Your task to perform on an android device: change the clock display to digital Image 0: 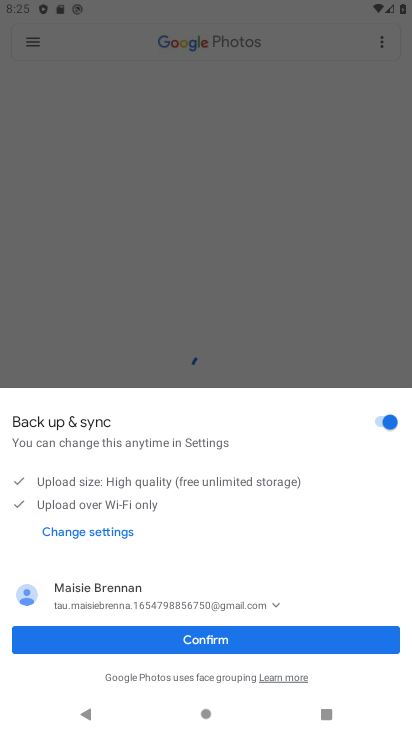
Step 0: click (158, 260)
Your task to perform on an android device: change the clock display to digital Image 1: 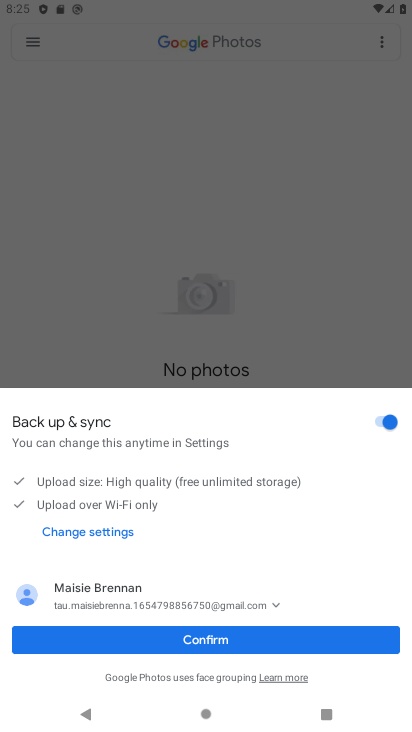
Step 1: click (172, 247)
Your task to perform on an android device: change the clock display to digital Image 2: 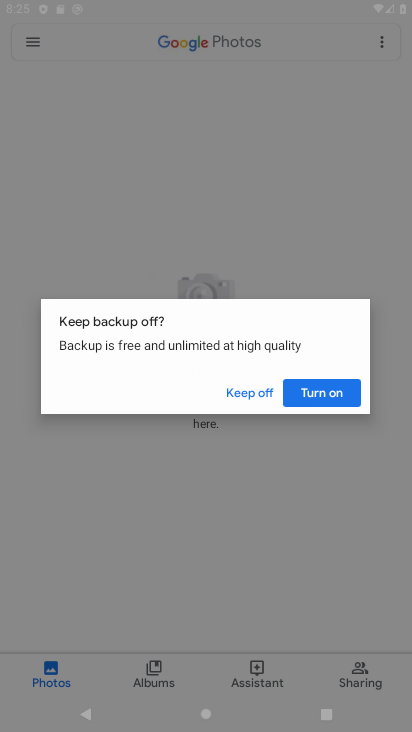
Step 2: click (174, 243)
Your task to perform on an android device: change the clock display to digital Image 3: 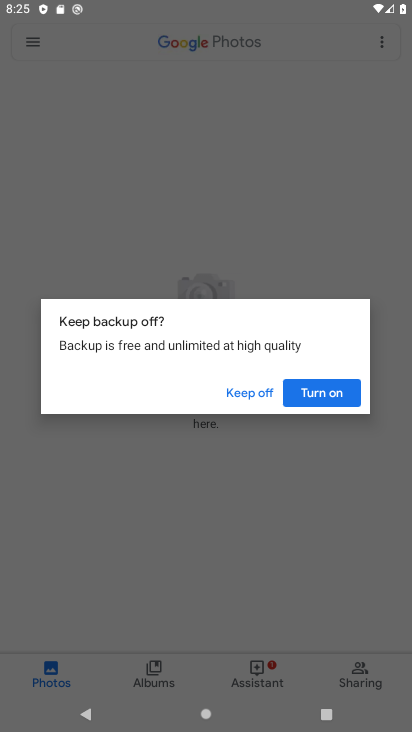
Step 3: click (309, 168)
Your task to perform on an android device: change the clock display to digital Image 4: 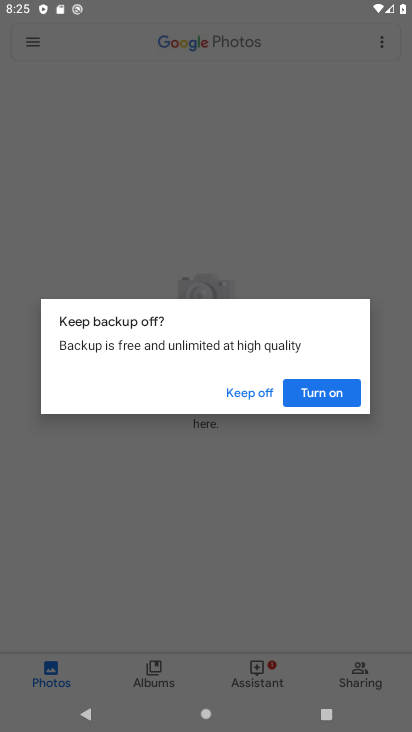
Step 4: click (305, 181)
Your task to perform on an android device: change the clock display to digital Image 5: 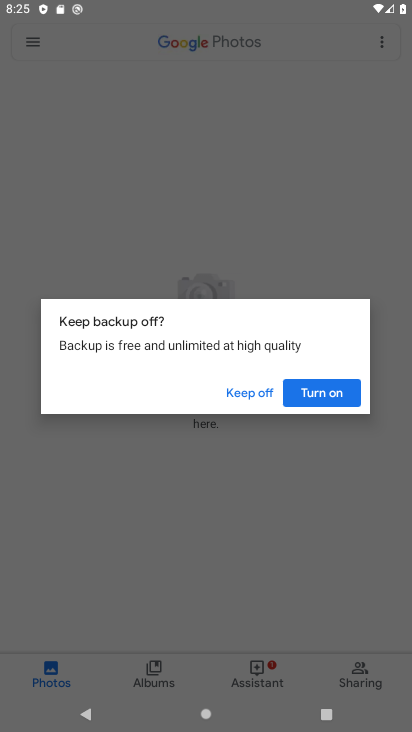
Step 5: click (305, 183)
Your task to perform on an android device: change the clock display to digital Image 6: 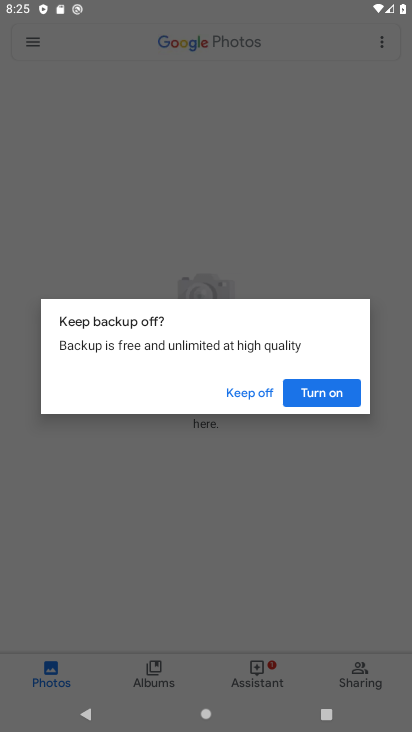
Step 6: click (305, 186)
Your task to perform on an android device: change the clock display to digital Image 7: 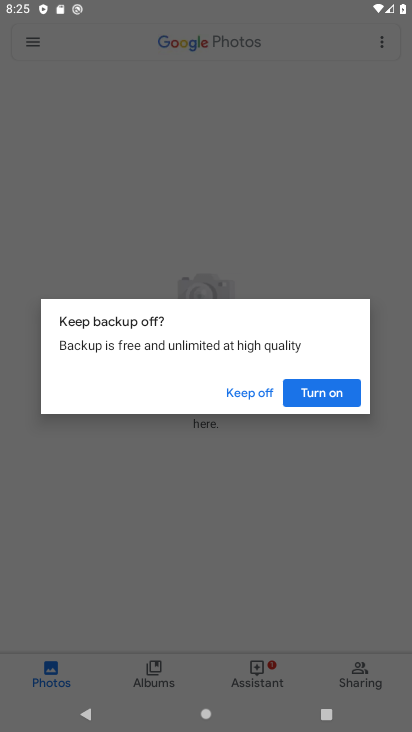
Step 7: click (302, 183)
Your task to perform on an android device: change the clock display to digital Image 8: 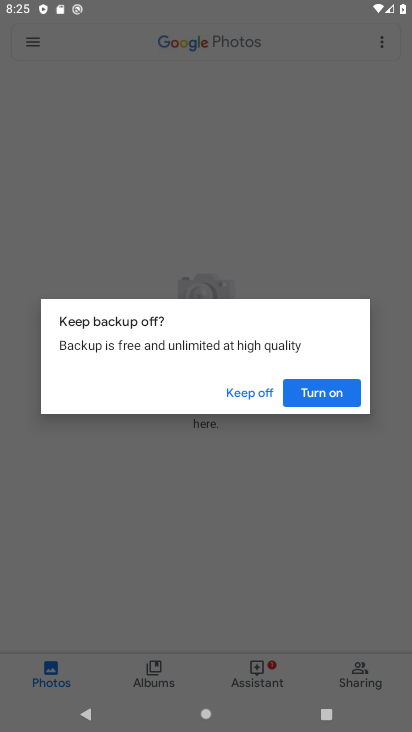
Step 8: click (306, 178)
Your task to perform on an android device: change the clock display to digital Image 9: 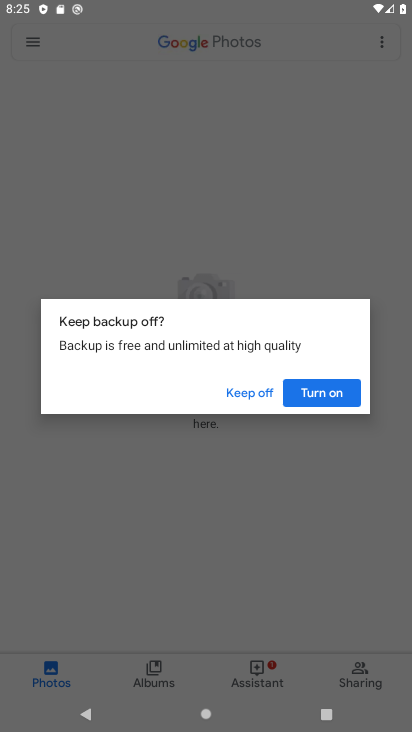
Step 9: click (307, 180)
Your task to perform on an android device: change the clock display to digital Image 10: 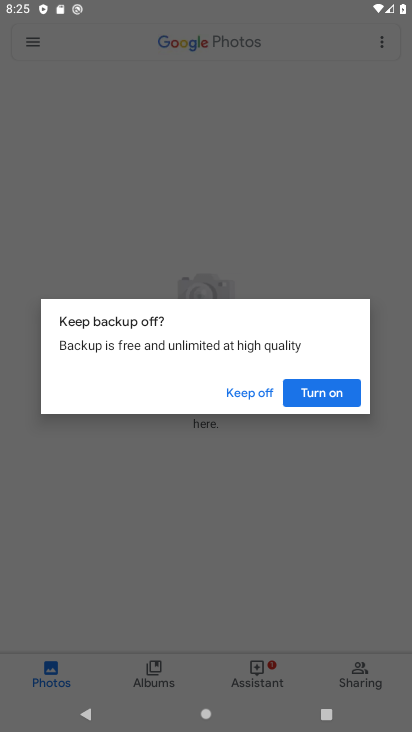
Step 10: click (232, 390)
Your task to perform on an android device: change the clock display to digital Image 11: 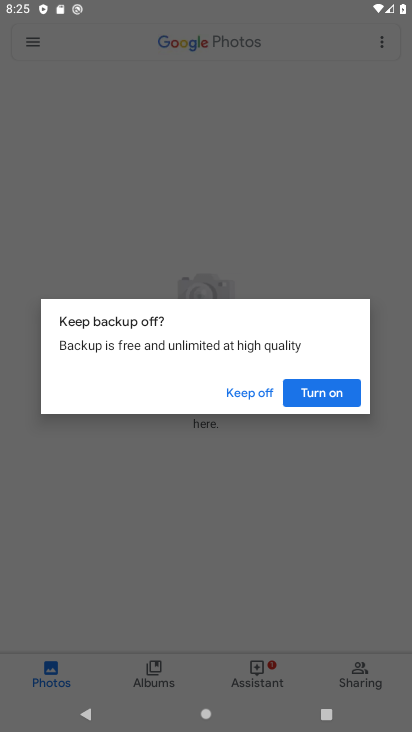
Step 11: click (233, 391)
Your task to perform on an android device: change the clock display to digital Image 12: 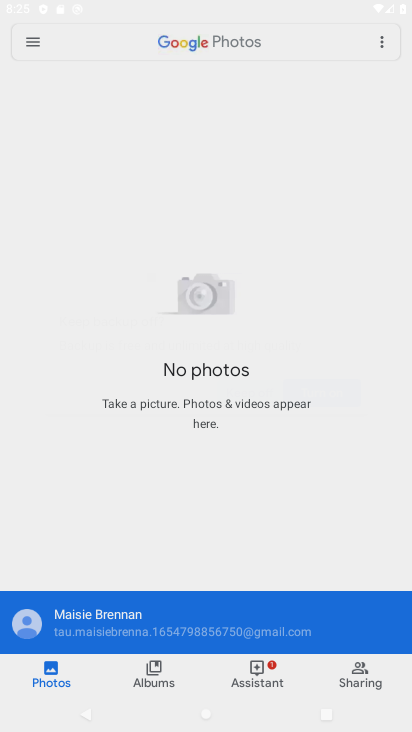
Step 12: click (237, 384)
Your task to perform on an android device: change the clock display to digital Image 13: 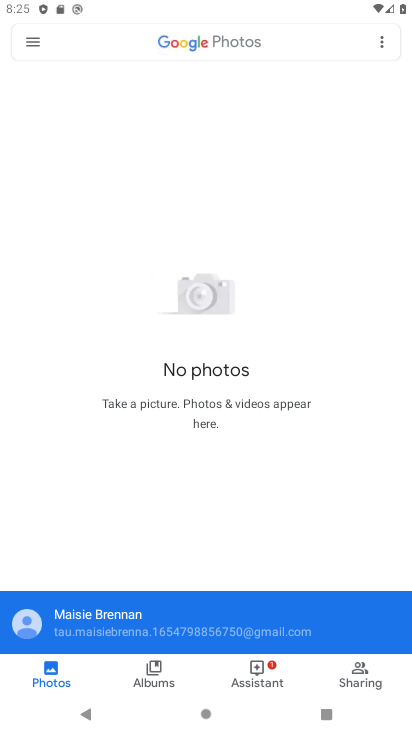
Step 13: click (240, 389)
Your task to perform on an android device: change the clock display to digital Image 14: 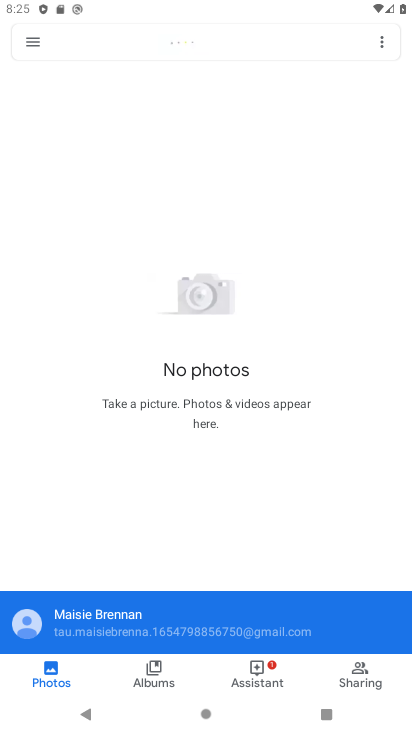
Step 14: click (179, 220)
Your task to perform on an android device: change the clock display to digital Image 15: 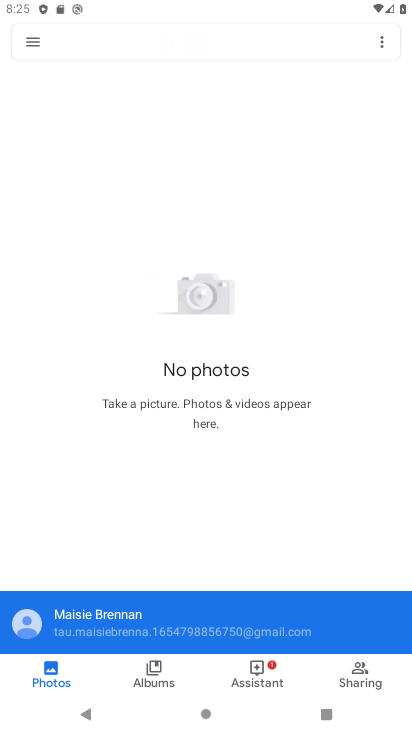
Step 15: click (179, 219)
Your task to perform on an android device: change the clock display to digital Image 16: 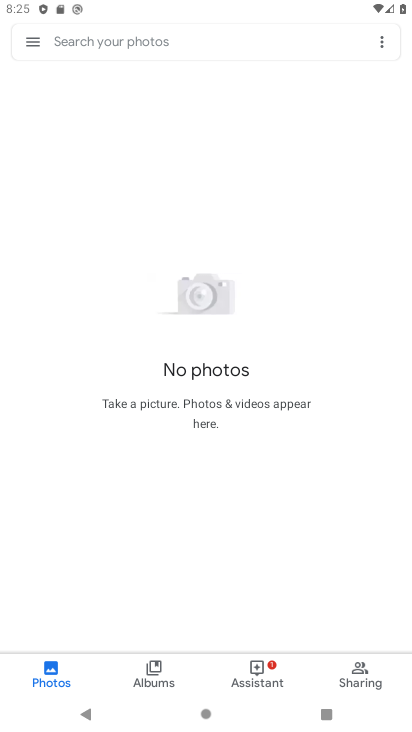
Step 16: press back button
Your task to perform on an android device: change the clock display to digital Image 17: 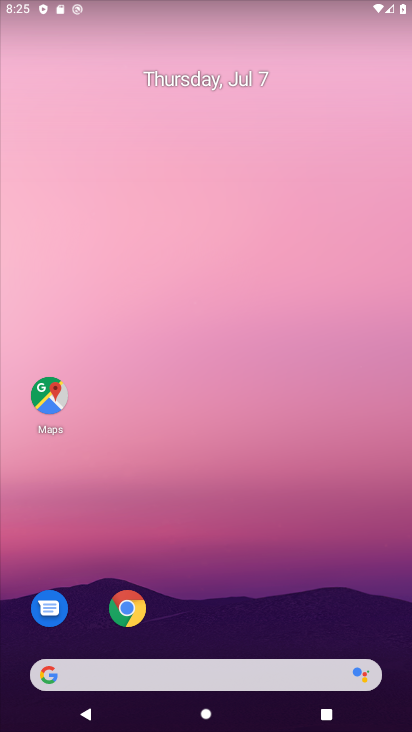
Step 17: drag from (259, 708) to (189, 285)
Your task to perform on an android device: change the clock display to digital Image 18: 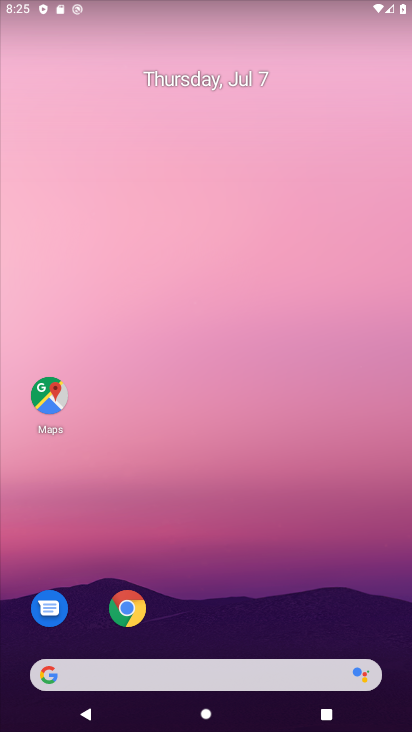
Step 18: drag from (224, 624) to (103, 179)
Your task to perform on an android device: change the clock display to digital Image 19: 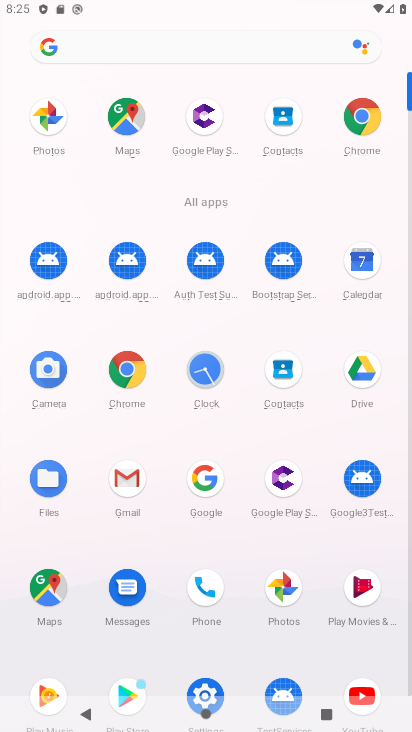
Step 19: click (212, 376)
Your task to perform on an android device: change the clock display to digital Image 20: 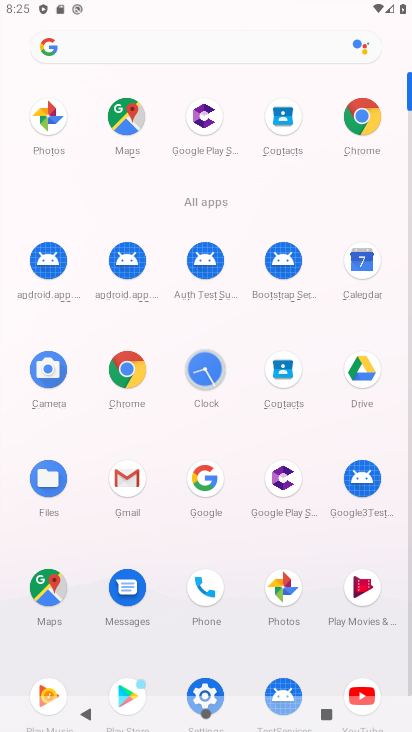
Step 20: click (212, 376)
Your task to perform on an android device: change the clock display to digital Image 21: 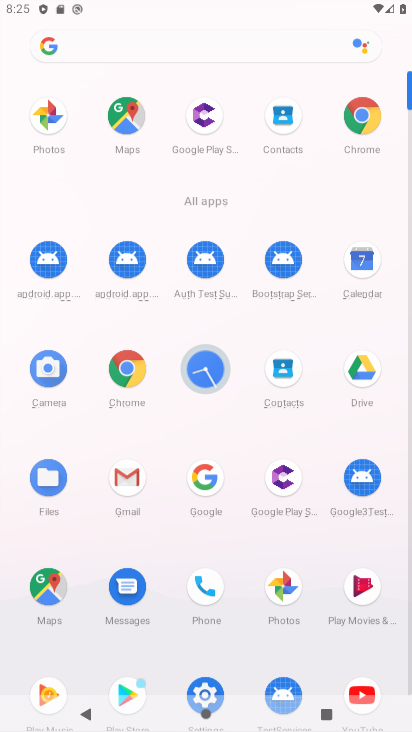
Step 21: click (212, 376)
Your task to perform on an android device: change the clock display to digital Image 22: 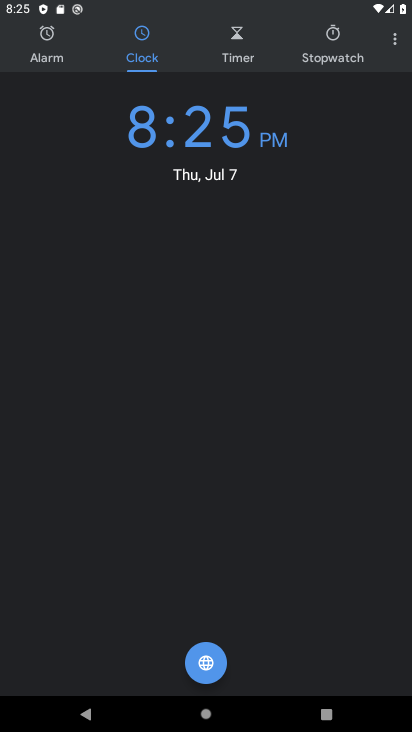
Step 22: click (392, 35)
Your task to perform on an android device: change the clock display to digital Image 23: 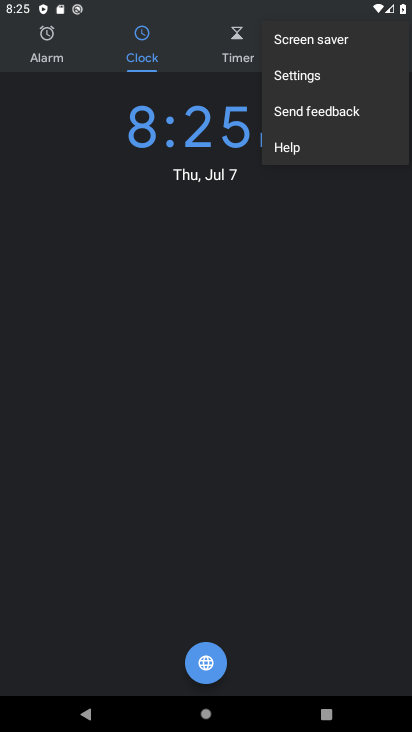
Step 23: click (312, 82)
Your task to perform on an android device: change the clock display to digital Image 24: 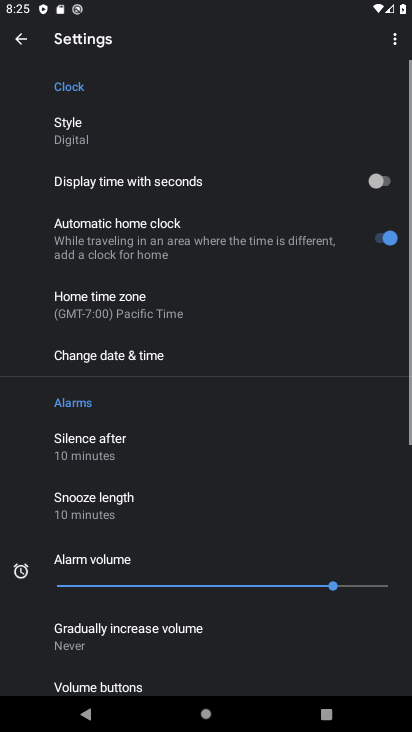
Step 24: click (78, 145)
Your task to perform on an android device: change the clock display to digital Image 25: 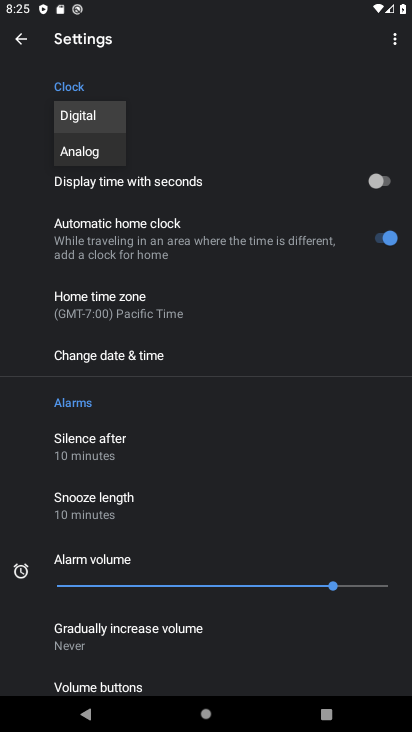
Step 25: click (73, 137)
Your task to perform on an android device: change the clock display to digital Image 26: 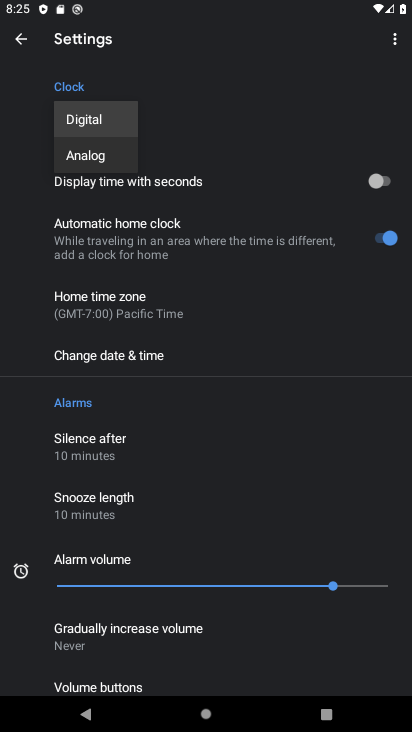
Step 26: click (73, 137)
Your task to perform on an android device: change the clock display to digital Image 27: 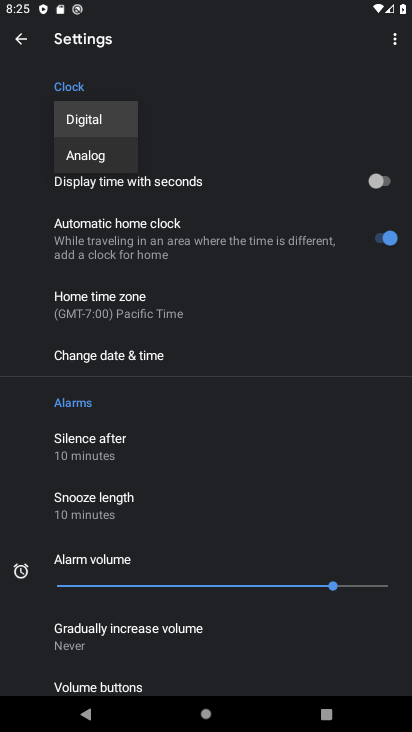
Step 27: click (92, 125)
Your task to perform on an android device: change the clock display to digital Image 28: 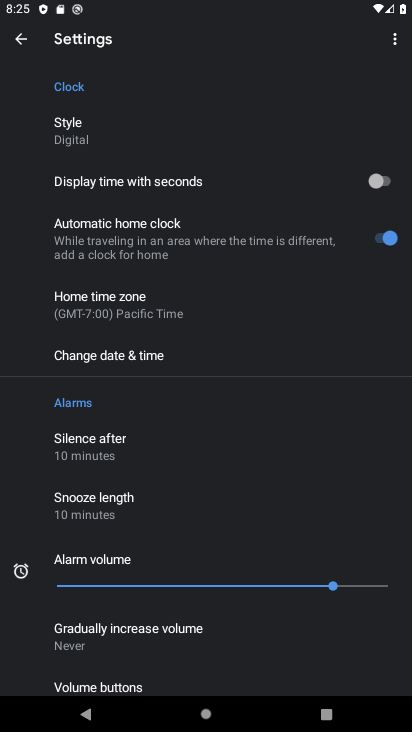
Step 28: task complete